Your task to perform on an android device: read, delete, or share a saved page in the chrome app Image 0: 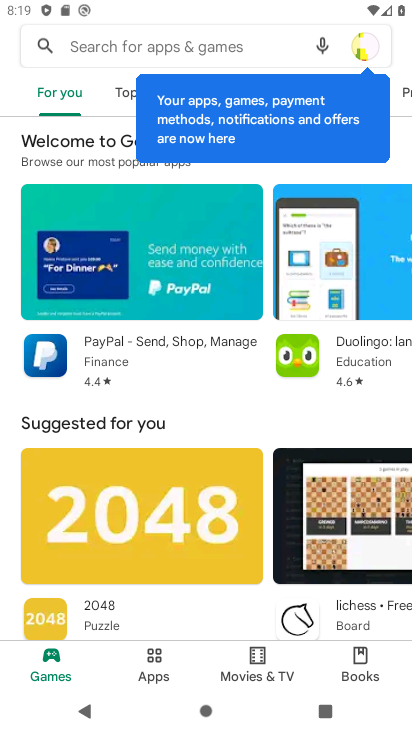
Step 0: press home button
Your task to perform on an android device: read, delete, or share a saved page in the chrome app Image 1: 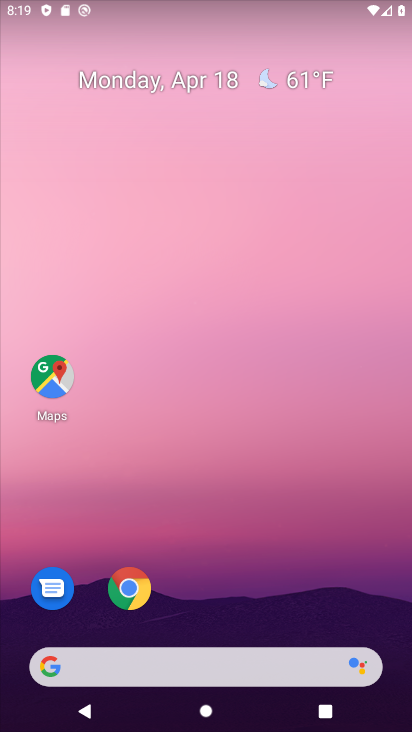
Step 1: click (140, 587)
Your task to perform on an android device: read, delete, or share a saved page in the chrome app Image 2: 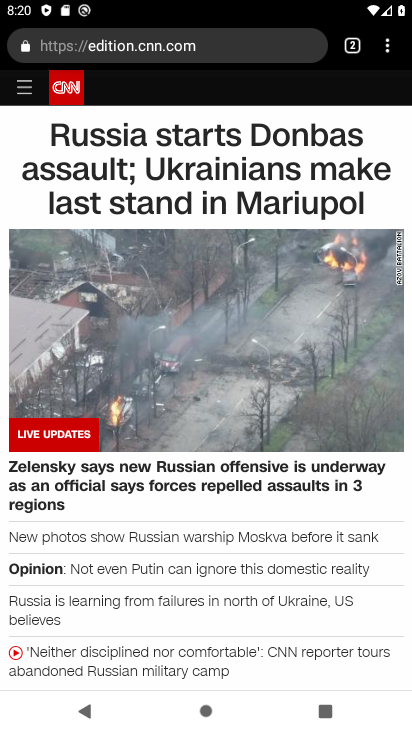
Step 2: click (387, 51)
Your task to perform on an android device: read, delete, or share a saved page in the chrome app Image 3: 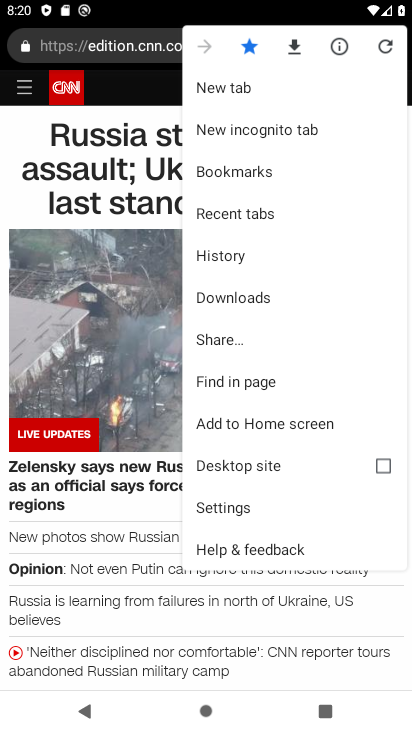
Step 3: click (243, 300)
Your task to perform on an android device: read, delete, or share a saved page in the chrome app Image 4: 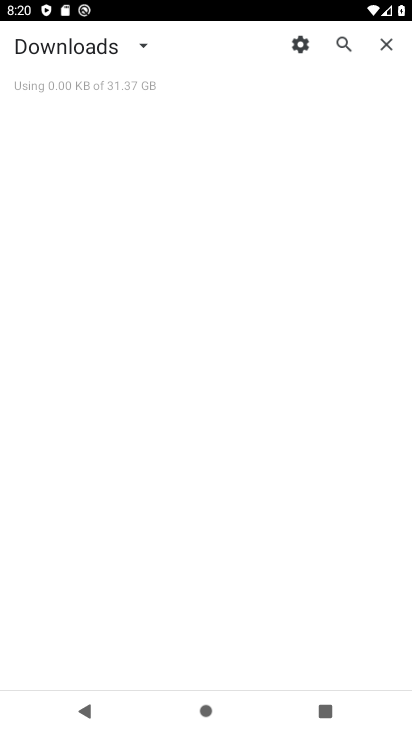
Step 4: task complete